Your task to perform on an android device: find snoozed emails in the gmail app Image 0: 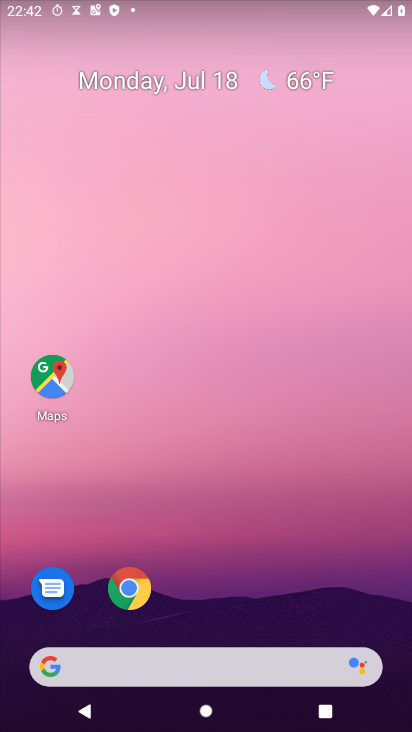
Step 0: press home button
Your task to perform on an android device: find snoozed emails in the gmail app Image 1: 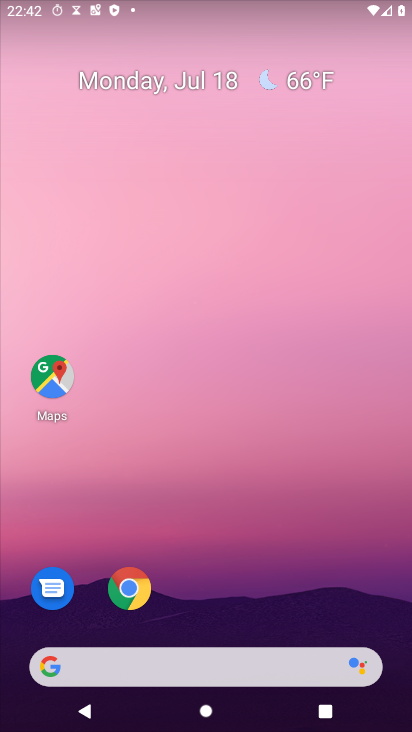
Step 1: drag from (161, 664) to (297, 204)
Your task to perform on an android device: find snoozed emails in the gmail app Image 2: 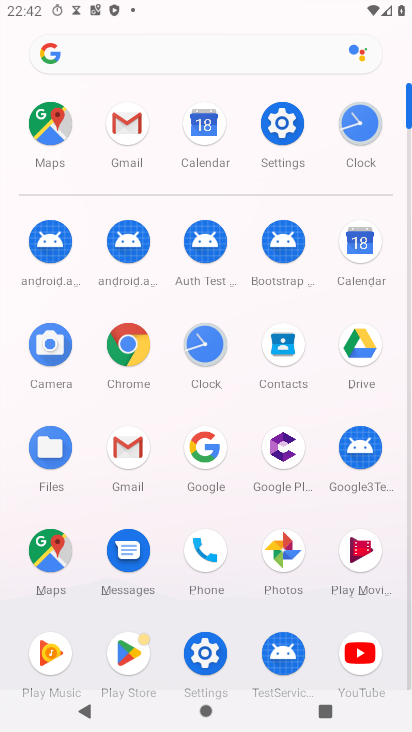
Step 2: click (125, 132)
Your task to perform on an android device: find snoozed emails in the gmail app Image 3: 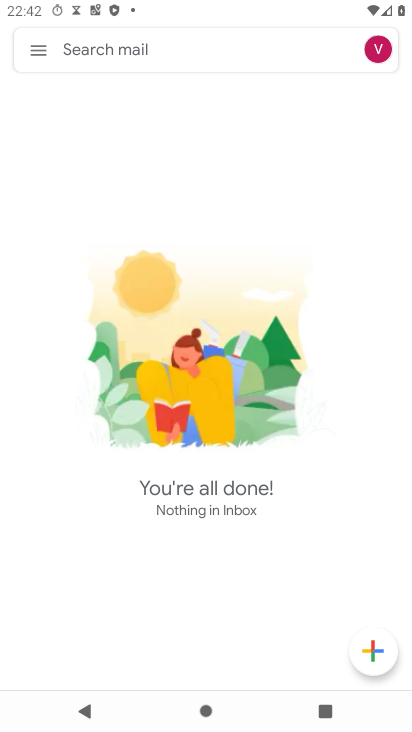
Step 3: click (32, 47)
Your task to perform on an android device: find snoozed emails in the gmail app Image 4: 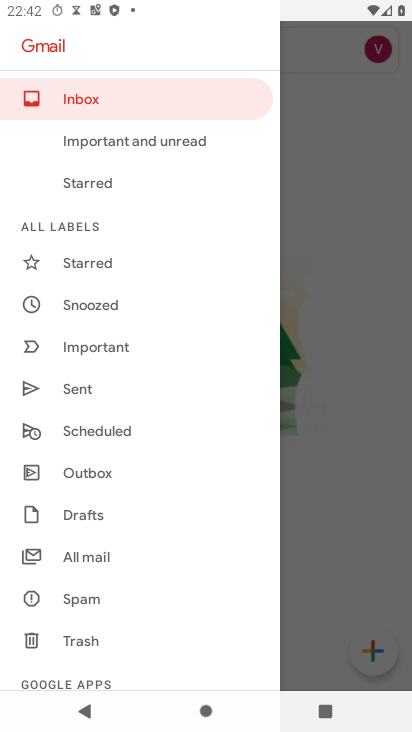
Step 4: click (107, 311)
Your task to perform on an android device: find snoozed emails in the gmail app Image 5: 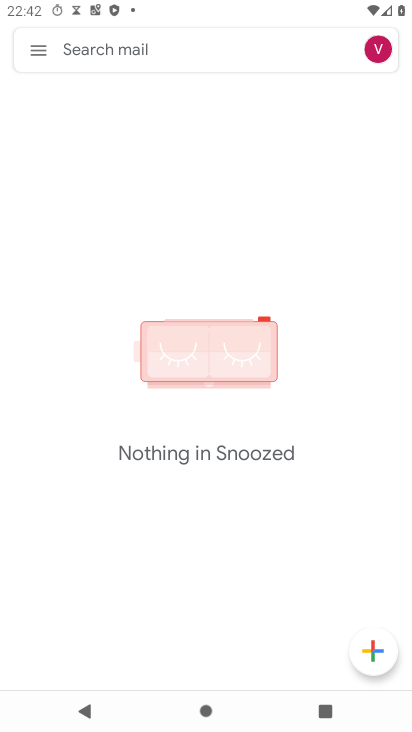
Step 5: task complete